Your task to perform on an android device: remove spam from my inbox in the gmail app Image 0: 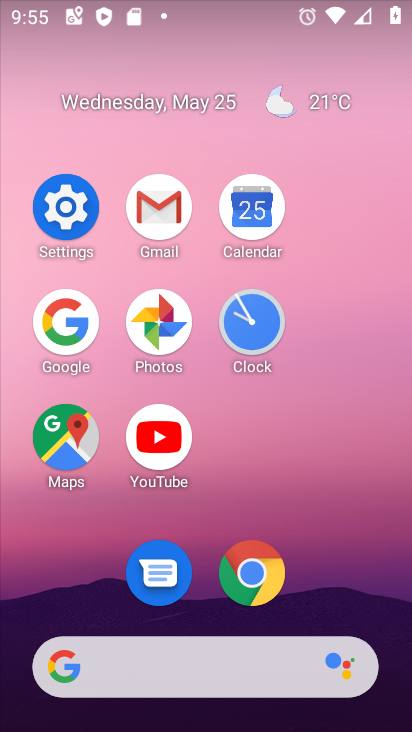
Step 0: click (170, 248)
Your task to perform on an android device: remove spam from my inbox in the gmail app Image 1: 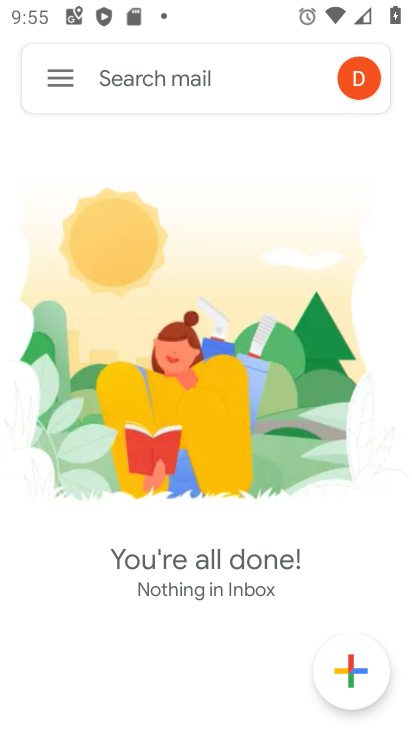
Step 1: click (59, 82)
Your task to perform on an android device: remove spam from my inbox in the gmail app Image 2: 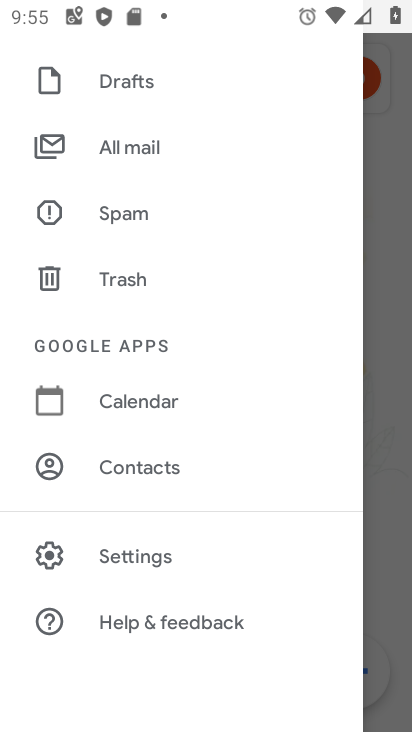
Step 2: click (151, 204)
Your task to perform on an android device: remove spam from my inbox in the gmail app Image 3: 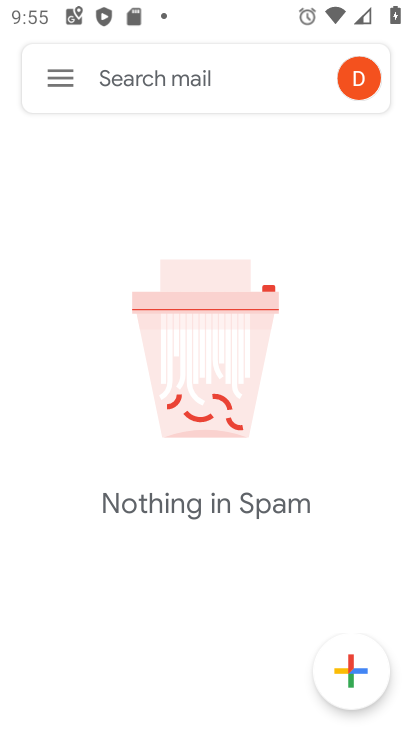
Step 3: task complete